Your task to perform on an android device: Go to Amazon Image 0: 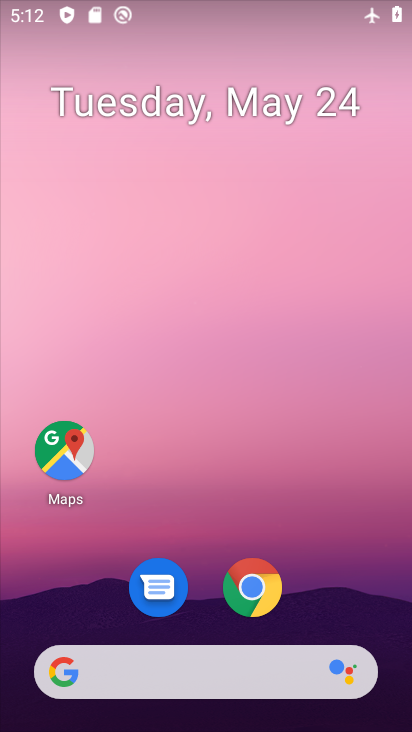
Step 0: click (258, 592)
Your task to perform on an android device: Go to Amazon Image 1: 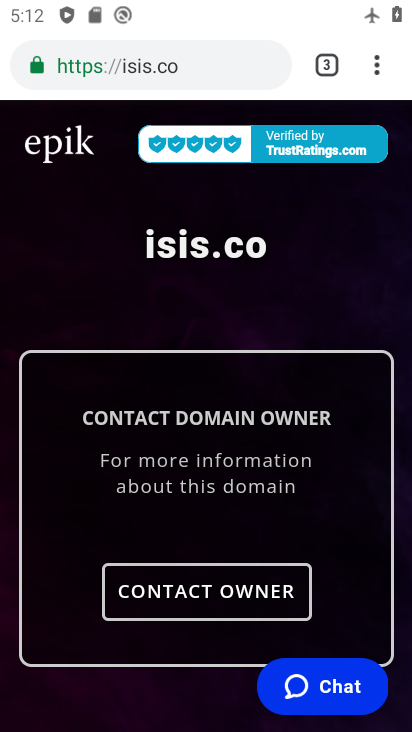
Step 1: click (322, 62)
Your task to perform on an android device: Go to Amazon Image 2: 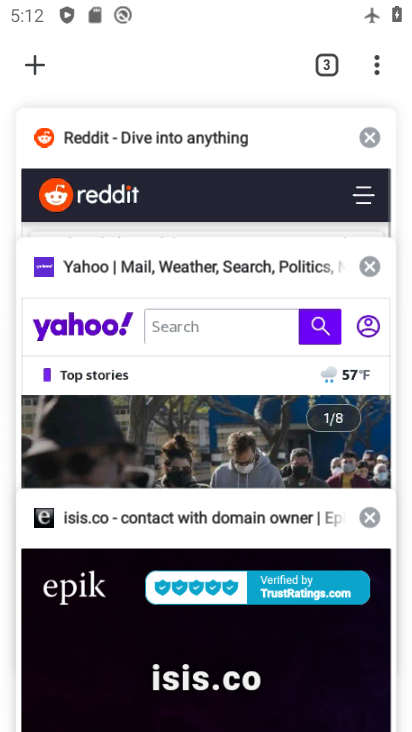
Step 2: click (36, 76)
Your task to perform on an android device: Go to Amazon Image 3: 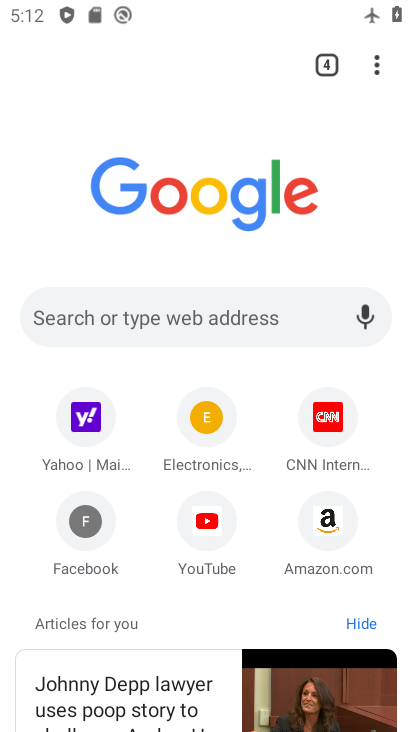
Step 3: click (313, 523)
Your task to perform on an android device: Go to Amazon Image 4: 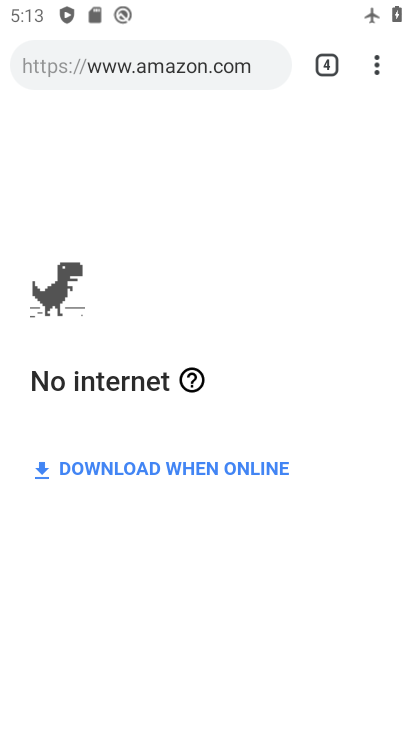
Step 4: task complete